Your task to perform on an android device: Open Yahoo.com Image 0: 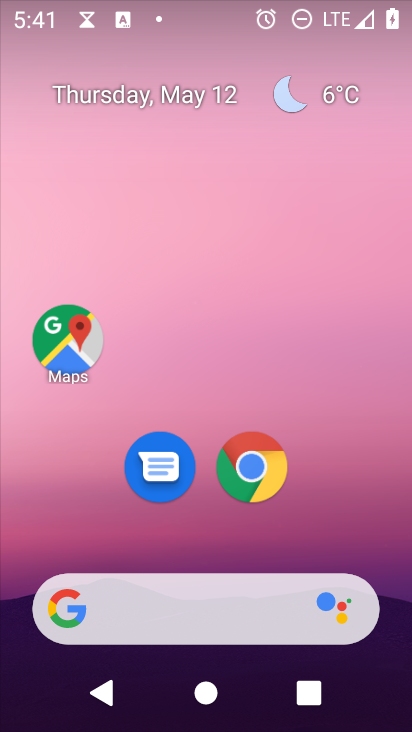
Step 0: press home button
Your task to perform on an android device: Open Yahoo.com Image 1: 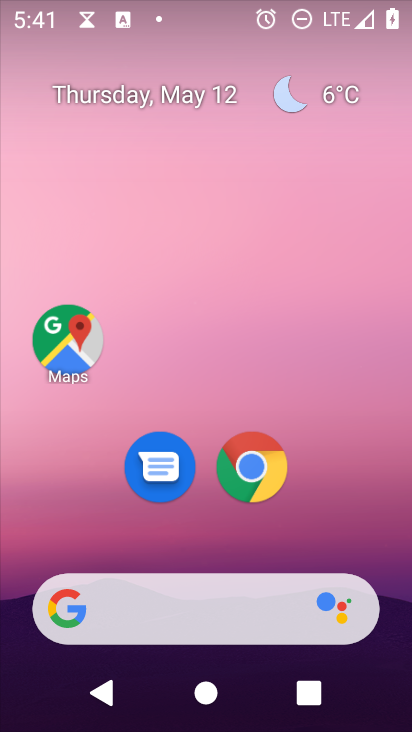
Step 1: click (283, 10)
Your task to perform on an android device: Open Yahoo.com Image 2: 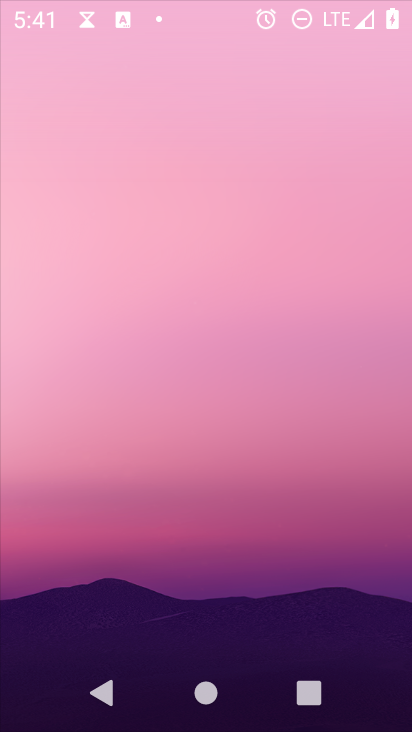
Step 2: press home button
Your task to perform on an android device: Open Yahoo.com Image 3: 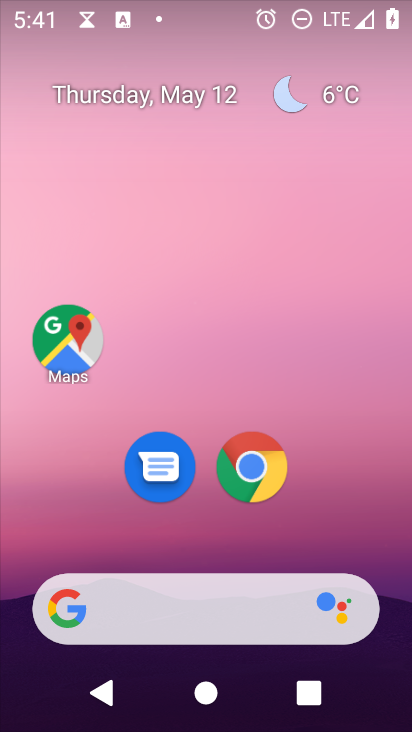
Step 3: drag from (291, 556) to (360, 25)
Your task to perform on an android device: Open Yahoo.com Image 4: 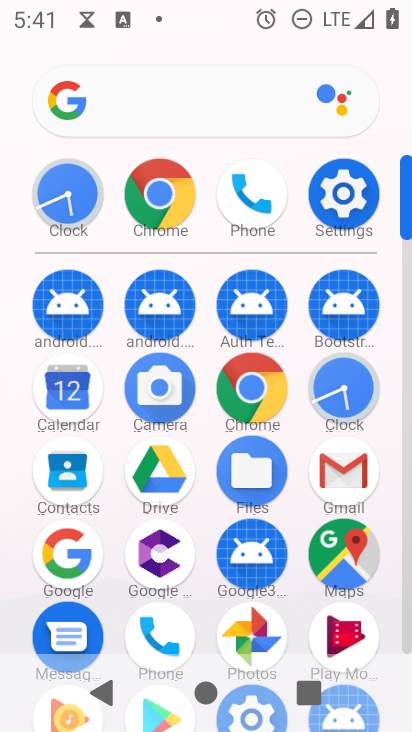
Step 4: click (247, 381)
Your task to perform on an android device: Open Yahoo.com Image 5: 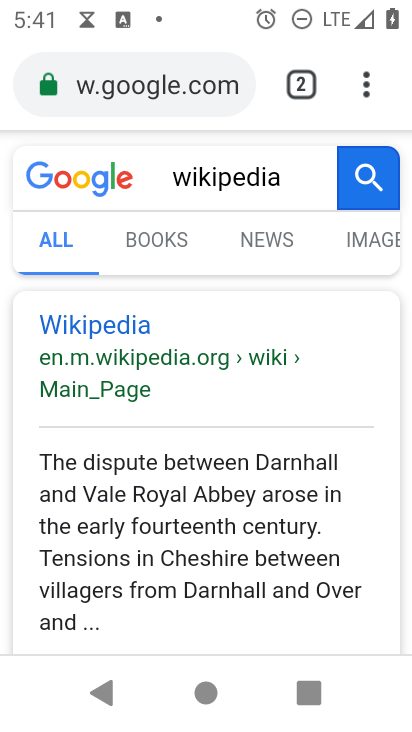
Step 5: click (215, 102)
Your task to perform on an android device: Open Yahoo.com Image 6: 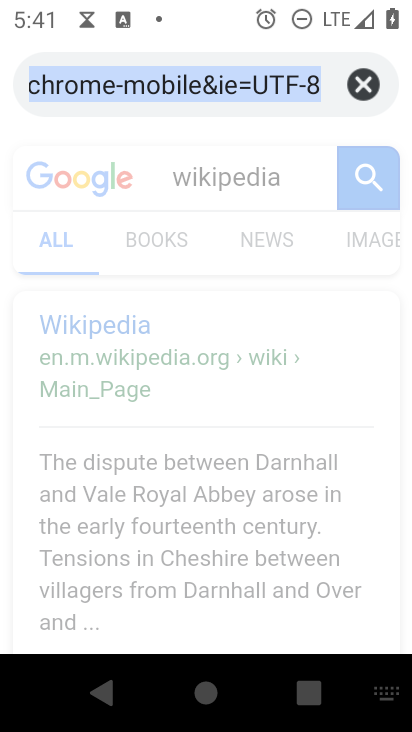
Step 6: click (376, 76)
Your task to perform on an android device: Open Yahoo.com Image 7: 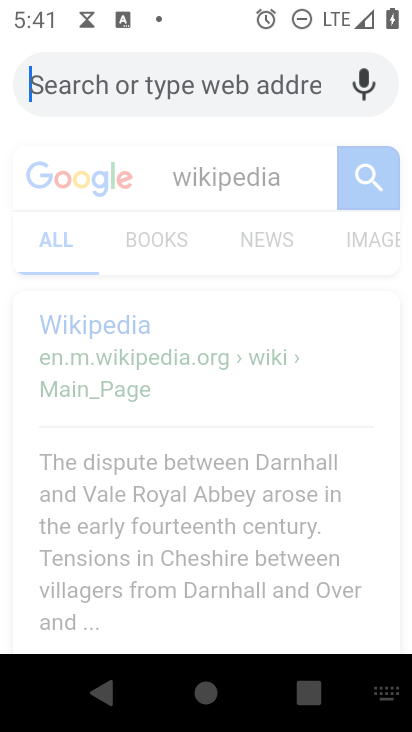
Step 7: type "yahoo.com"
Your task to perform on an android device: Open Yahoo.com Image 8: 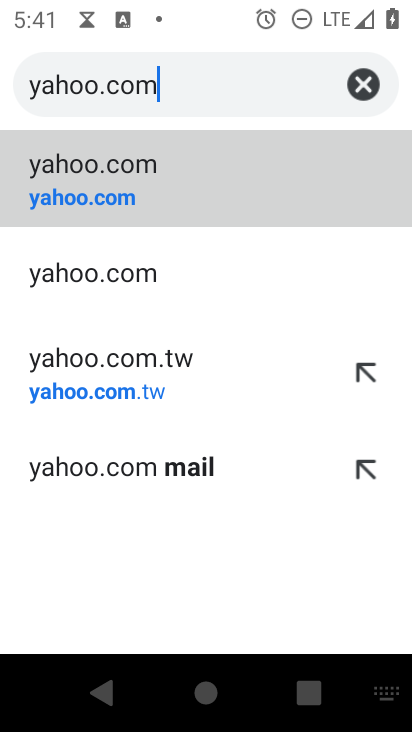
Step 8: click (238, 169)
Your task to perform on an android device: Open Yahoo.com Image 9: 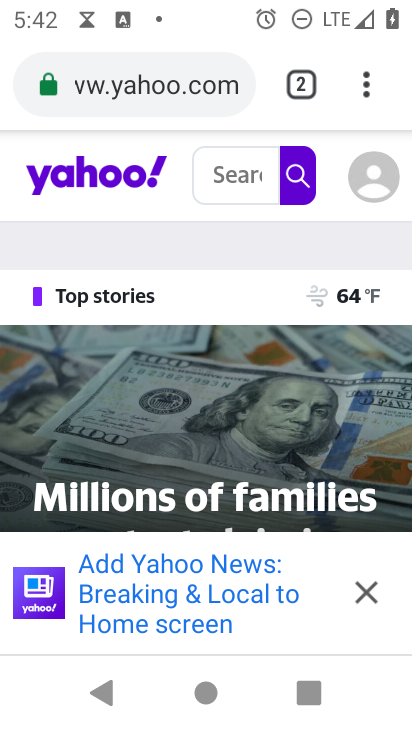
Step 9: task complete